Your task to perform on an android device: change text size in settings app Image 0: 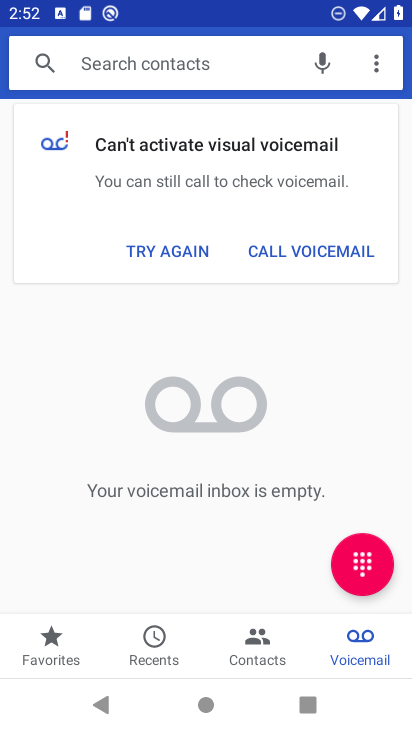
Step 0: task complete